Your task to perform on an android device: Search for flights from NYC to Paris Image 0: 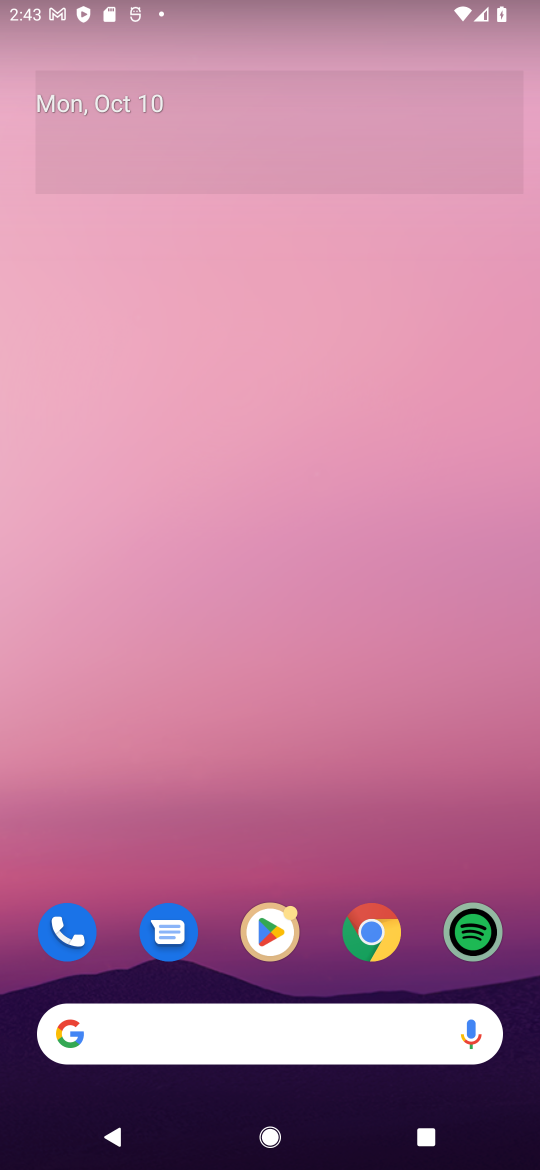
Step 0: press home button
Your task to perform on an android device: Search for flights from NYC to Paris Image 1: 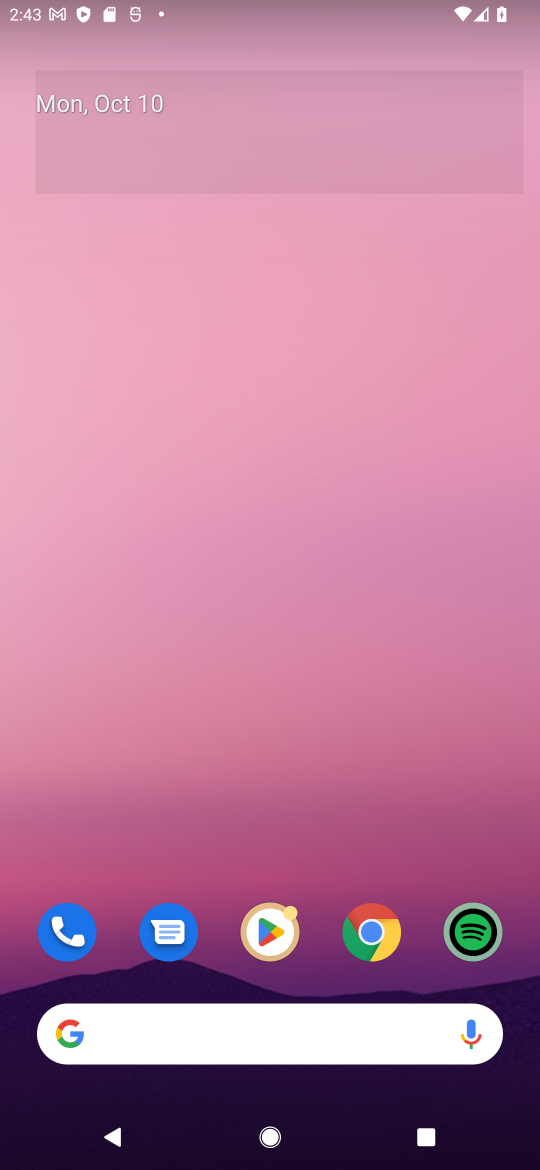
Step 1: click (234, 1029)
Your task to perform on an android device: Search for flights from NYC to Paris Image 2: 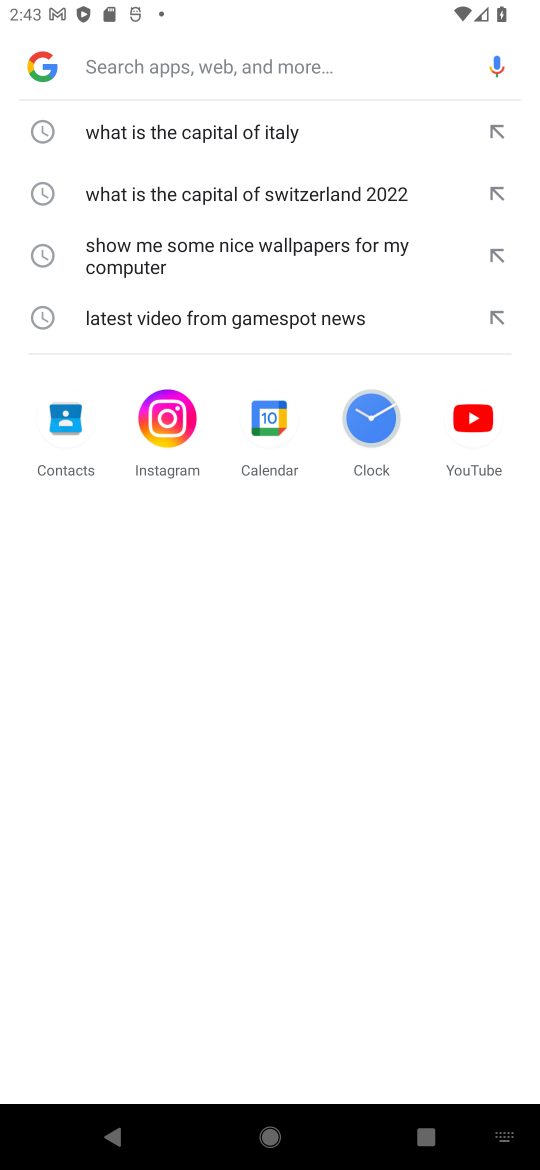
Step 2: press enter
Your task to perform on an android device: Search for flights from NYC to Paris Image 3: 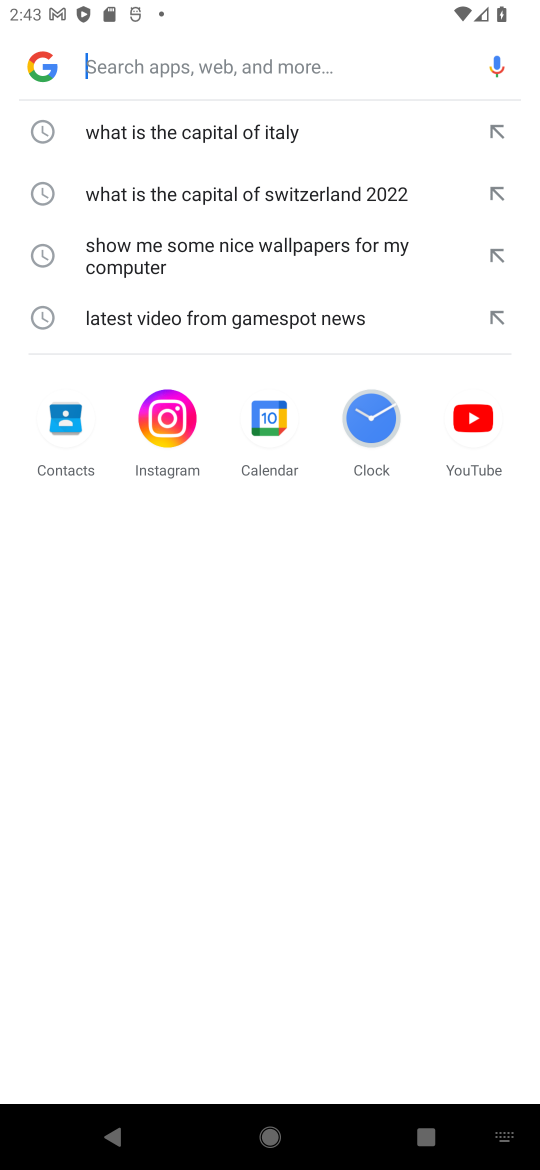
Step 3: type "flights from NYC to Paris"
Your task to perform on an android device: Search for flights from NYC to Paris Image 4: 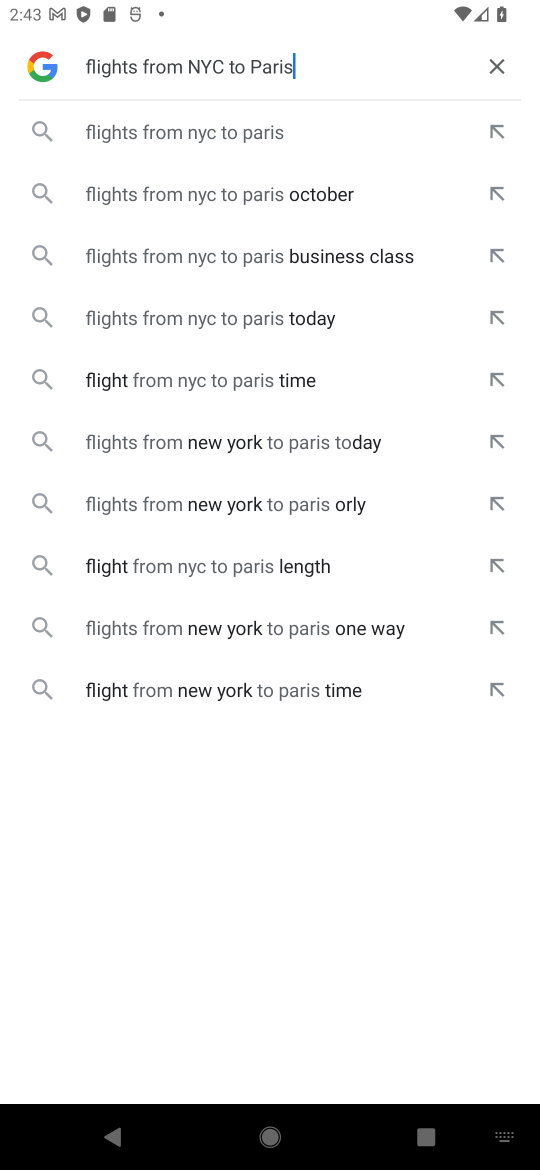
Step 4: press enter
Your task to perform on an android device: Search for flights from NYC to Paris Image 5: 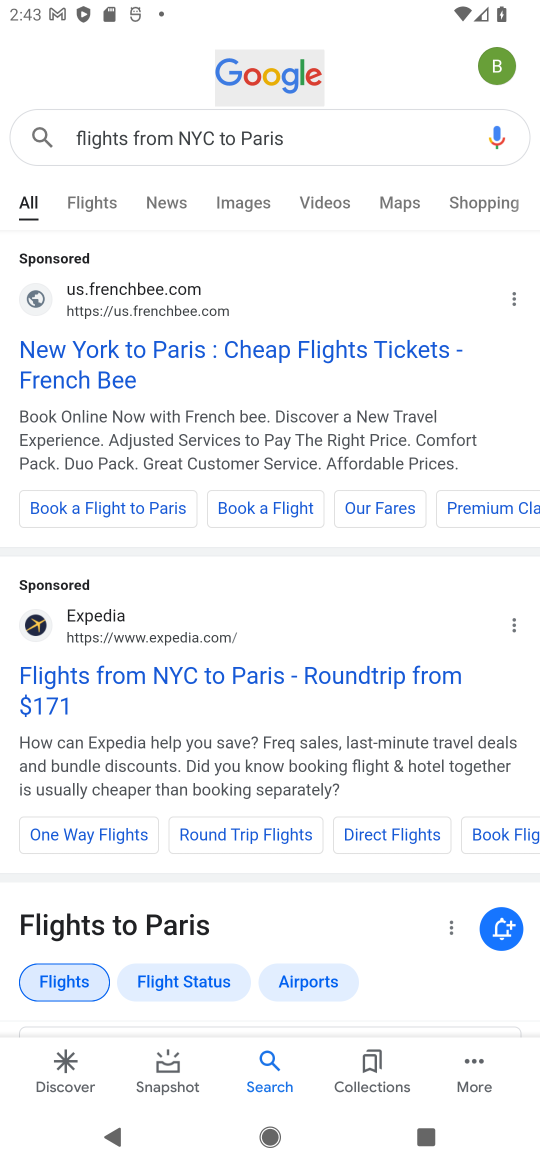
Step 5: drag from (312, 846) to (307, 337)
Your task to perform on an android device: Search for flights from NYC to Paris Image 6: 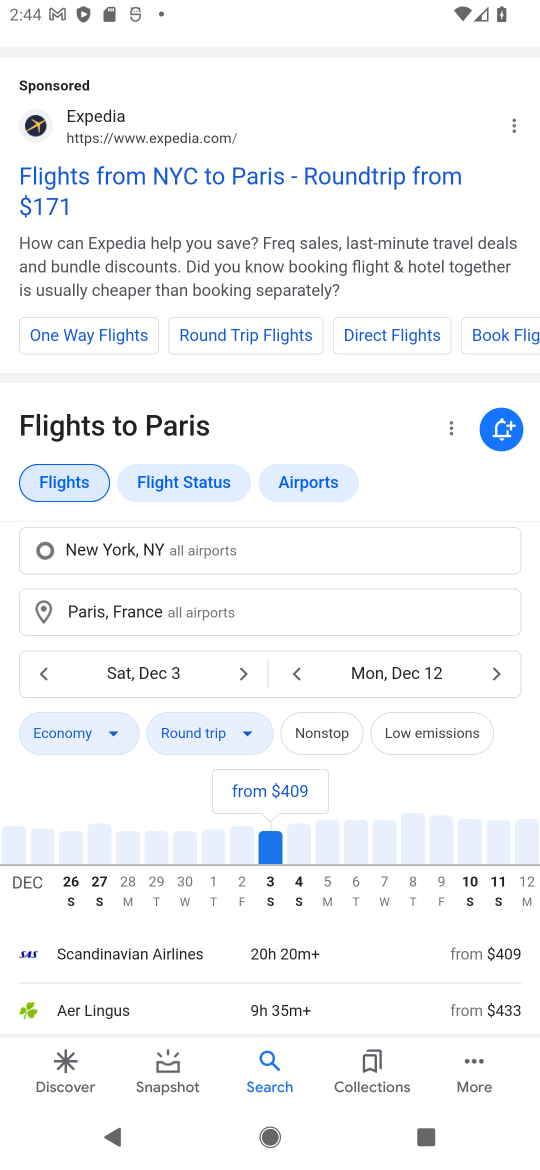
Step 6: drag from (314, 839) to (314, 404)
Your task to perform on an android device: Search for flights from NYC to Paris Image 7: 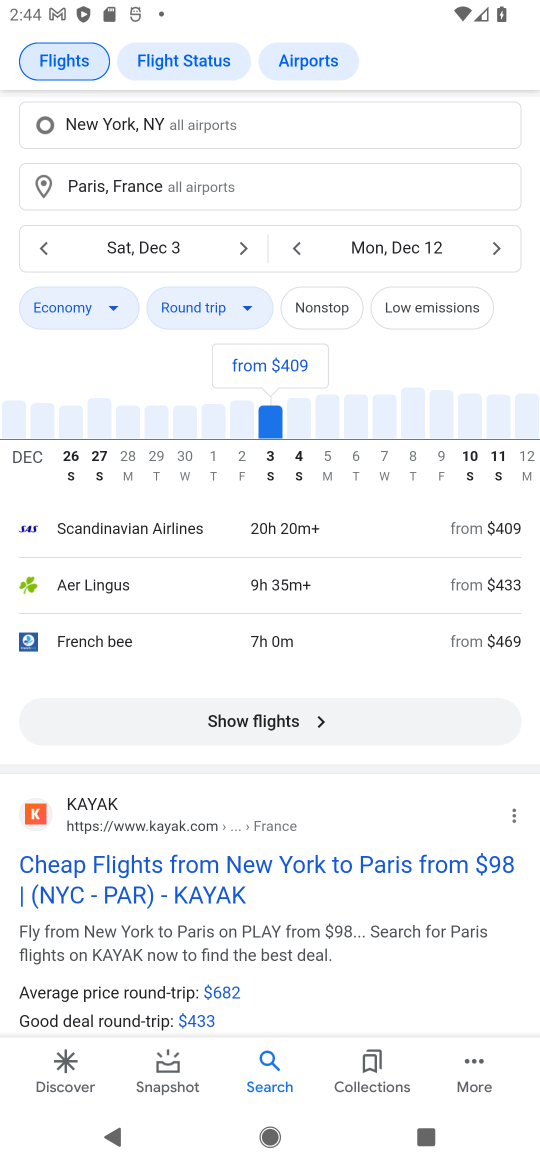
Step 7: click (277, 721)
Your task to perform on an android device: Search for flights from NYC to Paris Image 8: 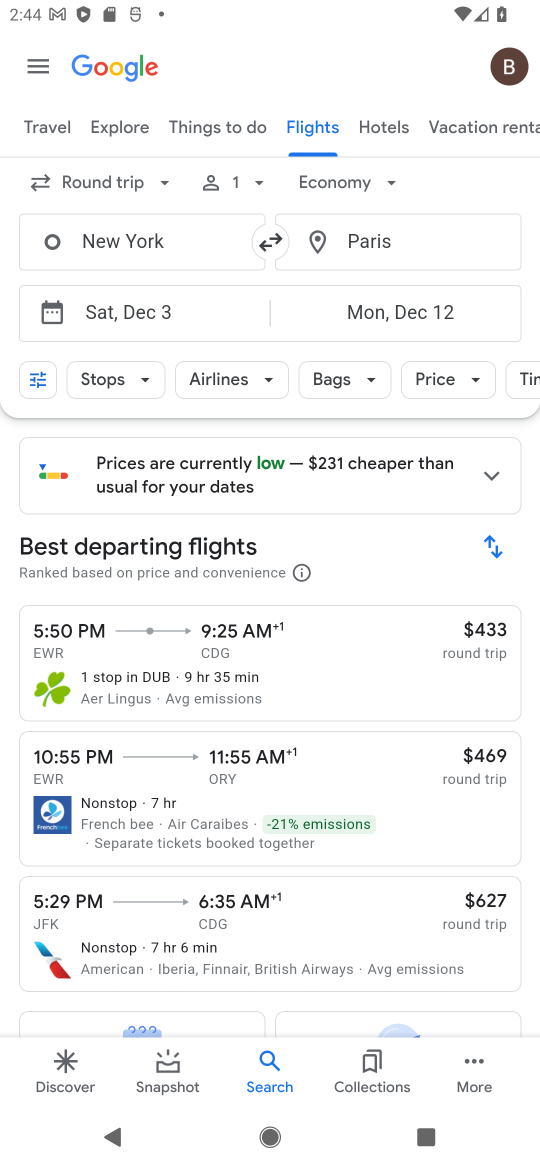
Step 8: task complete